Your task to perform on an android device: change notifications settings Image 0: 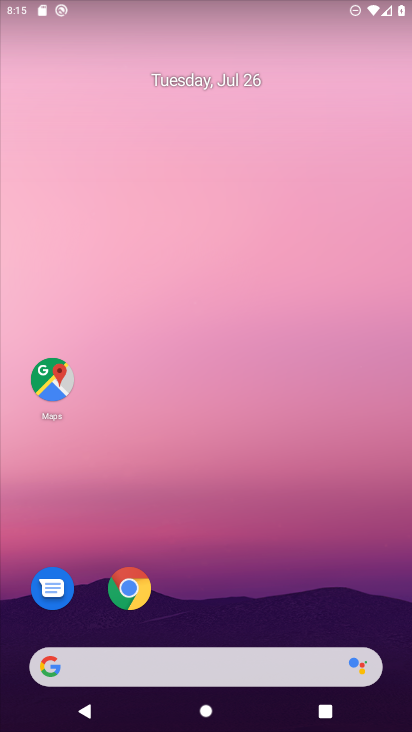
Step 0: drag from (208, 517) to (228, 75)
Your task to perform on an android device: change notifications settings Image 1: 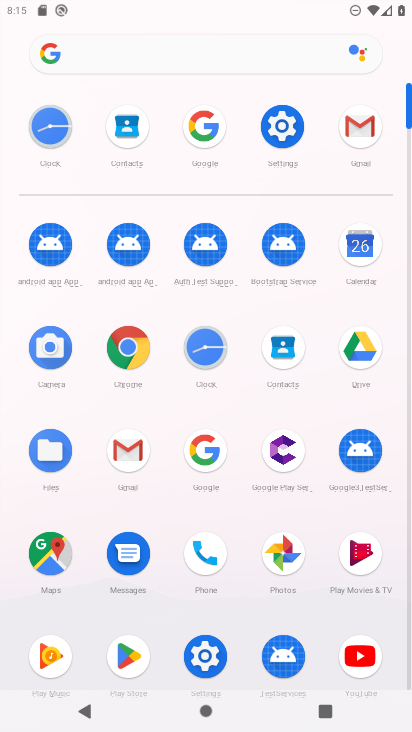
Step 1: click (279, 135)
Your task to perform on an android device: change notifications settings Image 2: 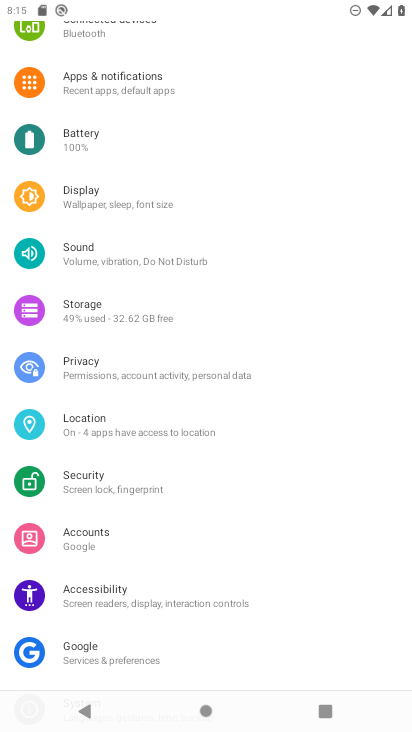
Step 2: click (84, 83)
Your task to perform on an android device: change notifications settings Image 3: 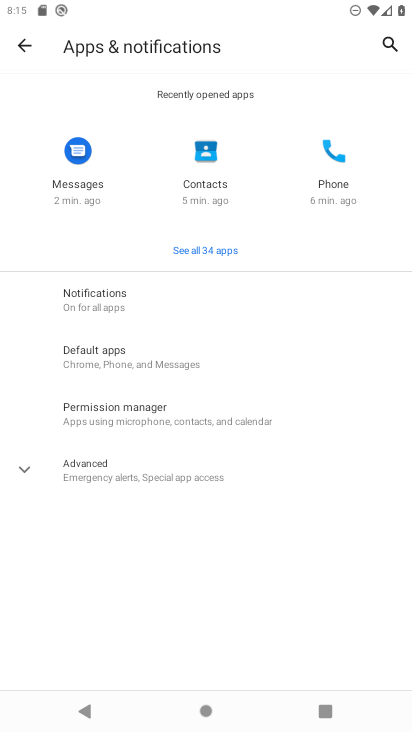
Step 3: click (110, 466)
Your task to perform on an android device: change notifications settings Image 4: 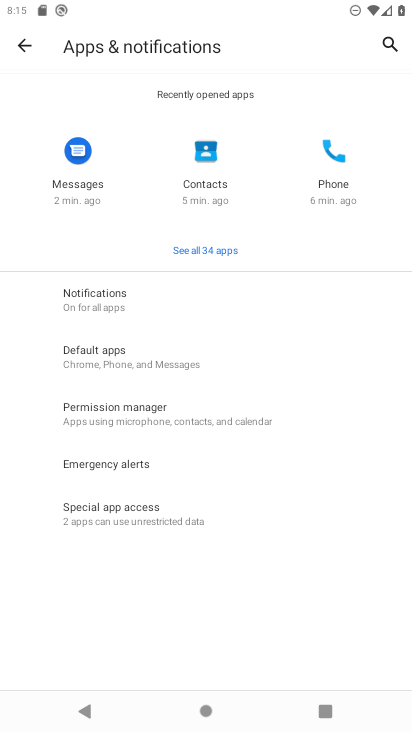
Step 4: task complete